Your task to perform on an android device: toggle wifi Image 0: 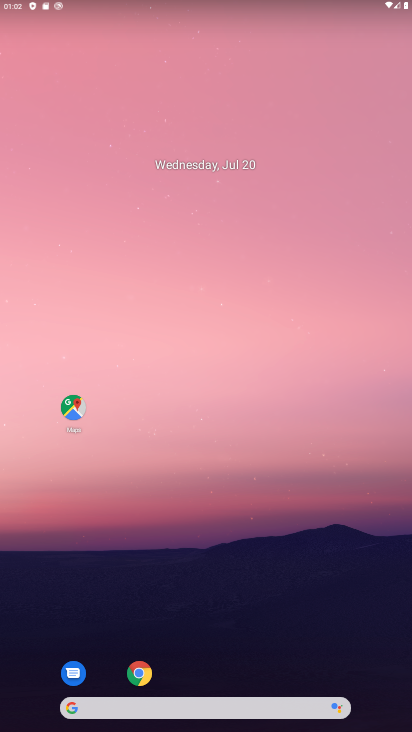
Step 0: drag from (116, 7) to (173, 515)
Your task to perform on an android device: toggle wifi Image 1: 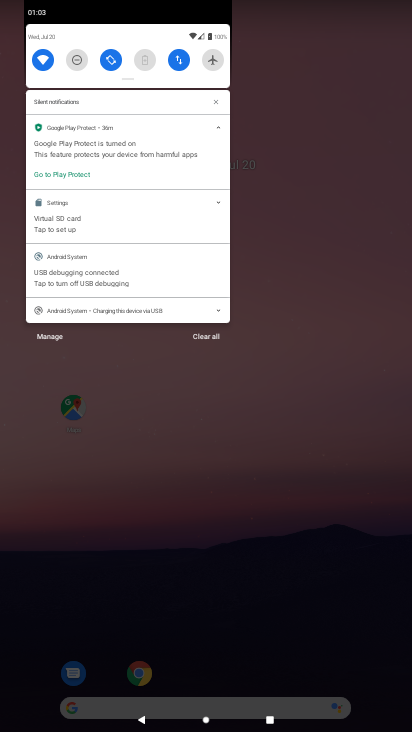
Step 1: click (45, 58)
Your task to perform on an android device: toggle wifi Image 2: 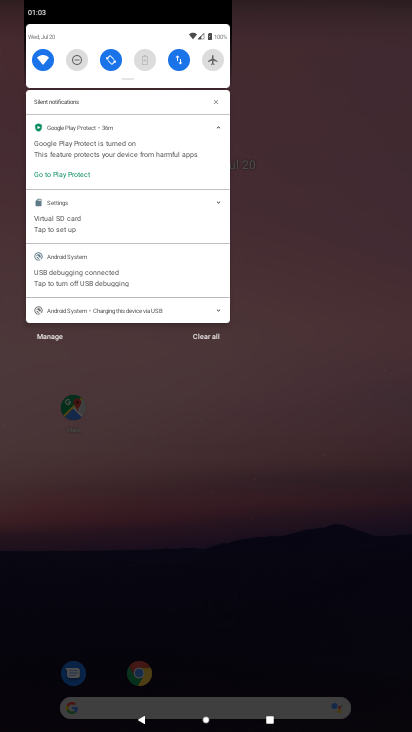
Step 2: click (45, 58)
Your task to perform on an android device: toggle wifi Image 3: 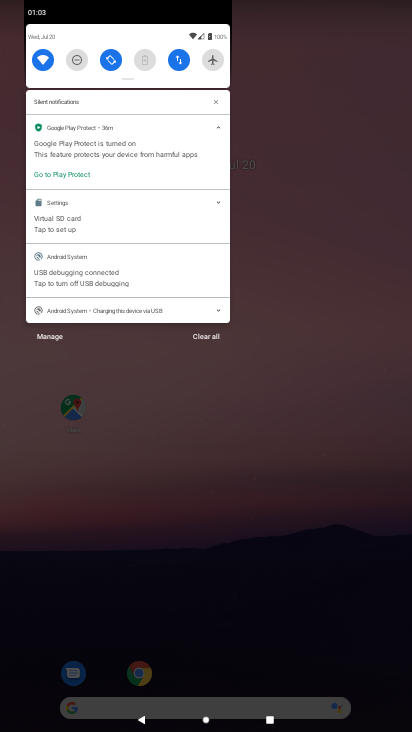
Step 3: click (45, 58)
Your task to perform on an android device: toggle wifi Image 4: 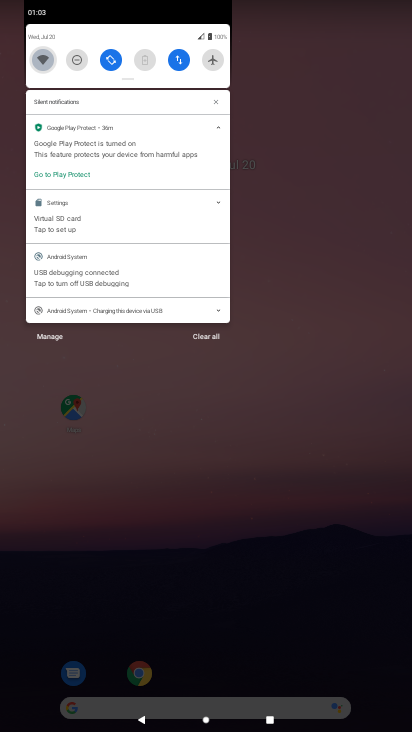
Step 4: click (45, 58)
Your task to perform on an android device: toggle wifi Image 5: 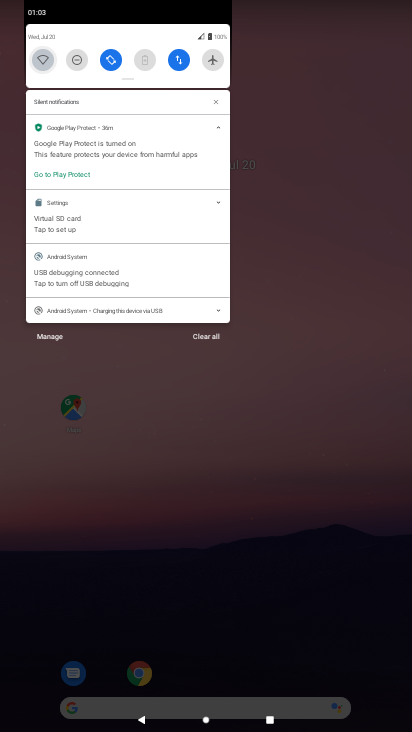
Step 5: click (45, 58)
Your task to perform on an android device: toggle wifi Image 6: 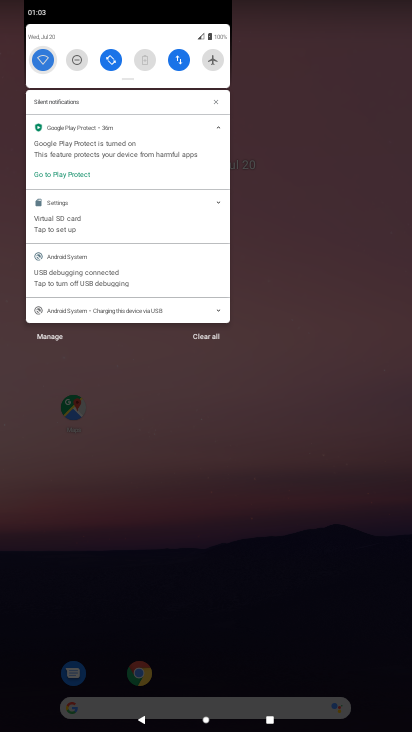
Step 6: click (45, 58)
Your task to perform on an android device: toggle wifi Image 7: 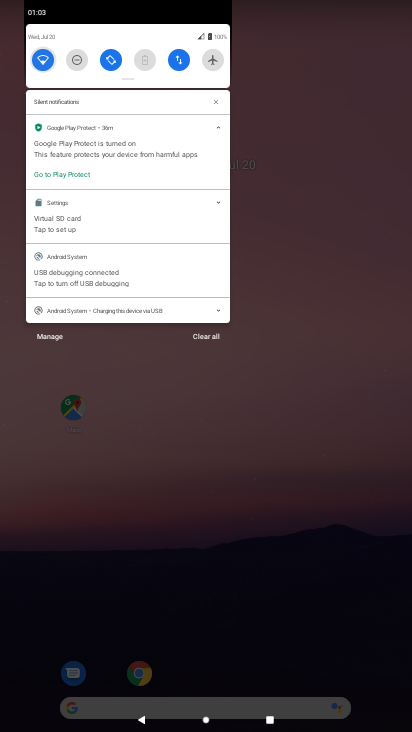
Step 7: click (45, 58)
Your task to perform on an android device: toggle wifi Image 8: 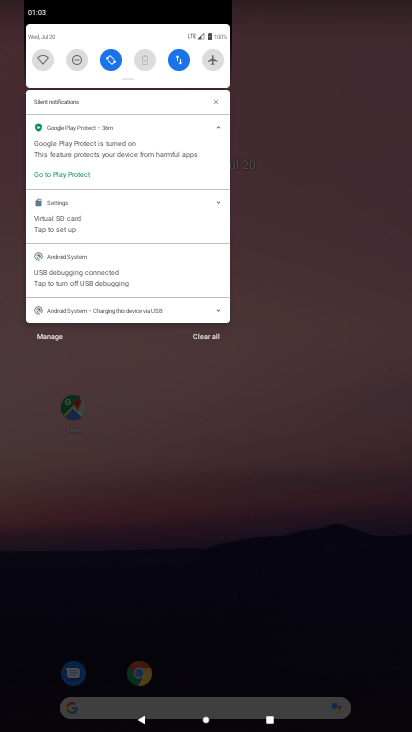
Step 8: click (45, 58)
Your task to perform on an android device: toggle wifi Image 9: 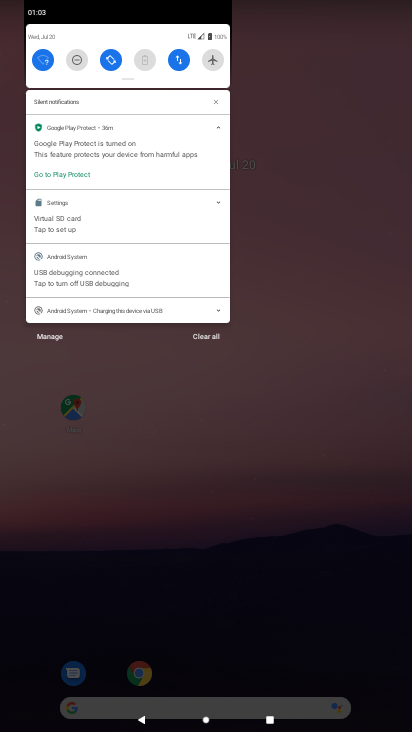
Step 9: task complete